Your task to perform on an android device: Open Chrome and go to the settings page Image 0: 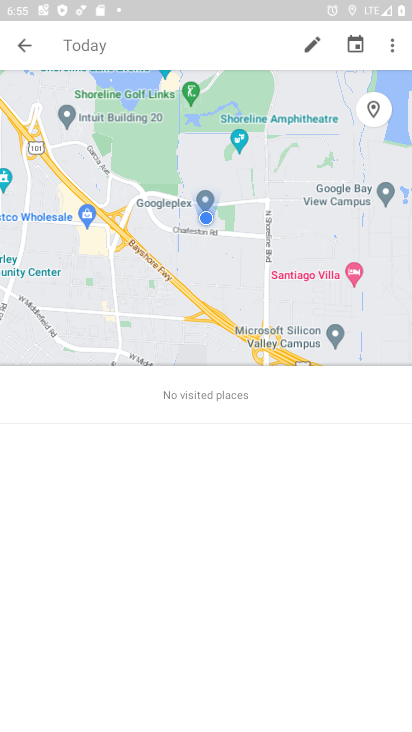
Step 0: press home button
Your task to perform on an android device: Open Chrome and go to the settings page Image 1: 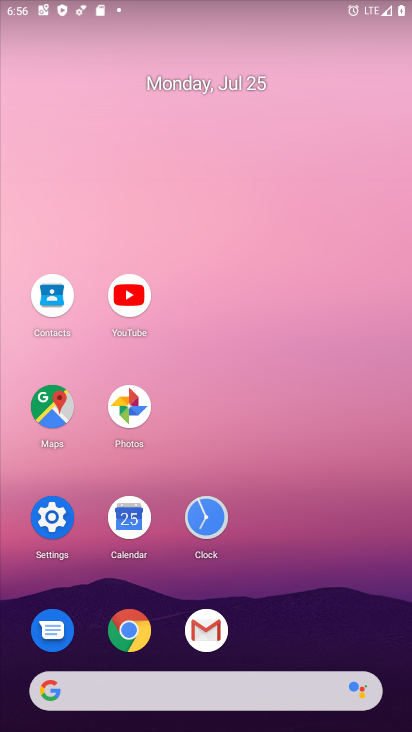
Step 1: click (127, 632)
Your task to perform on an android device: Open Chrome and go to the settings page Image 2: 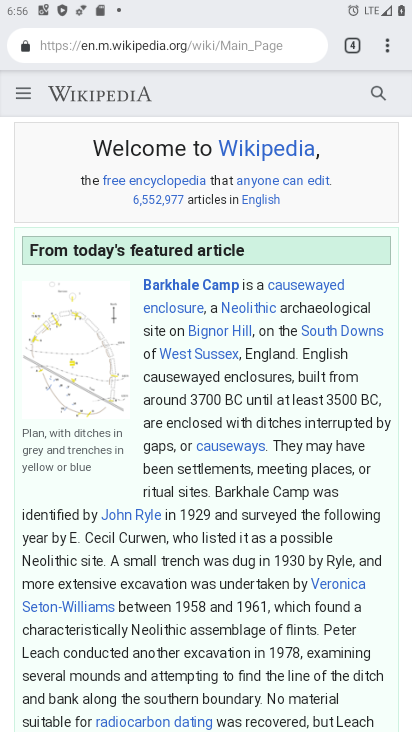
Step 2: click (381, 40)
Your task to perform on an android device: Open Chrome and go to the settings page Image 3: 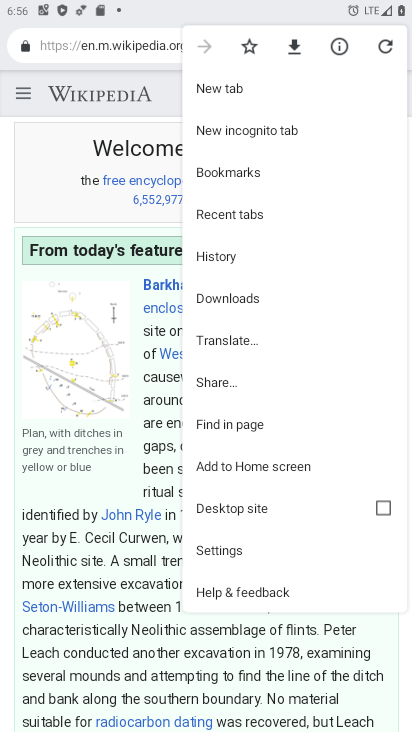
Step 3: click (225, 547)
Your task to perform on an android device: Open Chrome and go to the settings page Image 4: 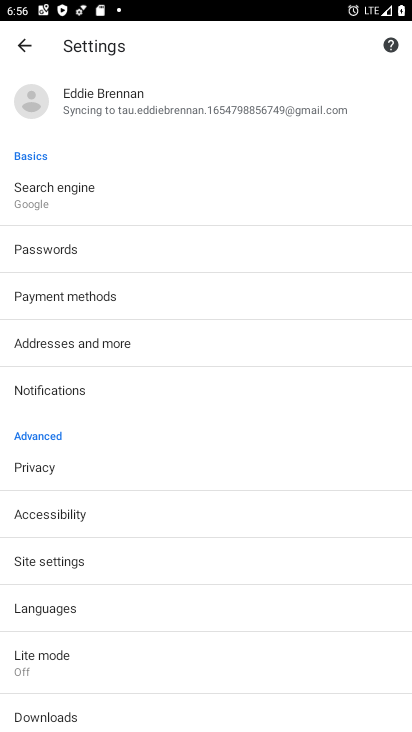
Step 4: task complete